Your task to perform on an android device: find which apps use the phone's location Image 0: 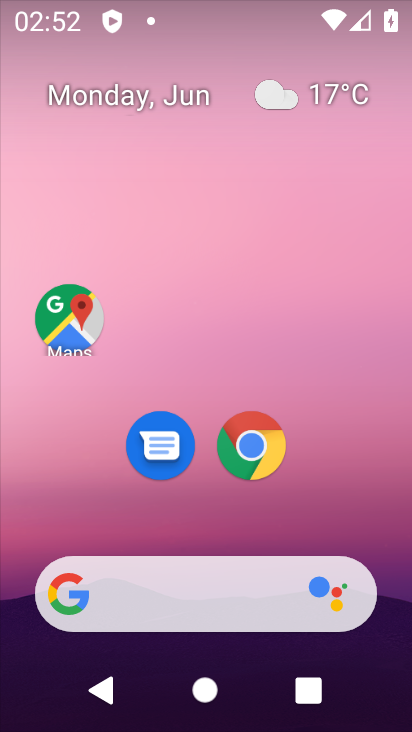
Step 0: drag from (111, 553) to (254, 41)
Your task to perform on an android device: find which apps use the phone's location Image 1: 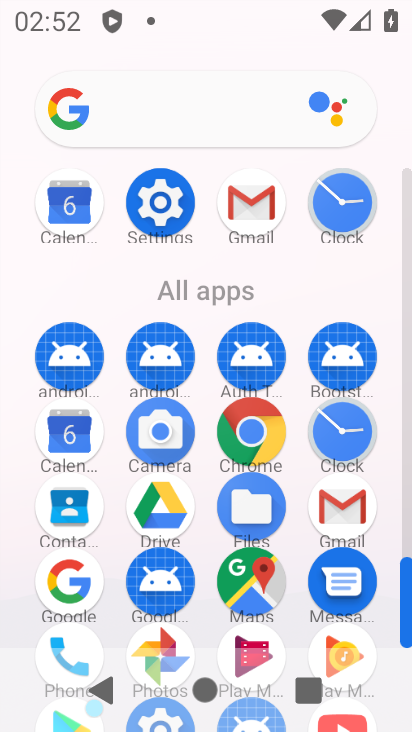
Step 1: drag from (204, 663) to (294, 257)
Your task to perform on an android device: find which apps use the phone's location Image 2: 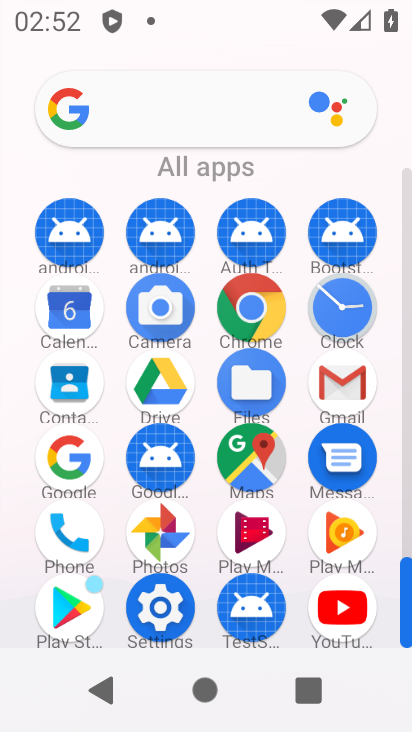
Step 2: click (159, 622)
Your task to perform on an android device: find which apps use the phone's location Image 3: 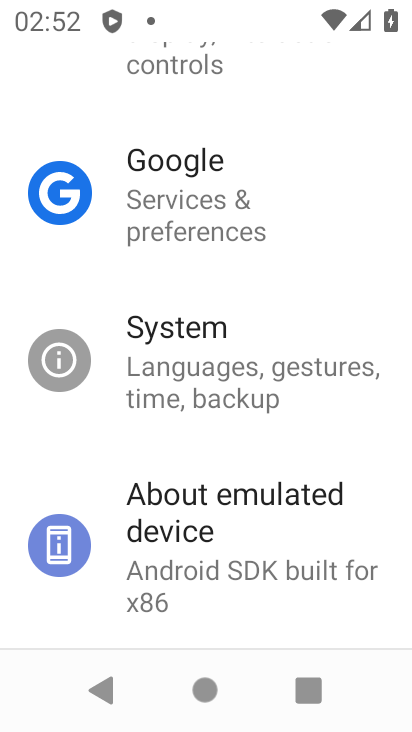
Step 3: drag from (273, 146) to (236, 574)
Your task to perform on an android device: find which apps use the phone's location Image 4: 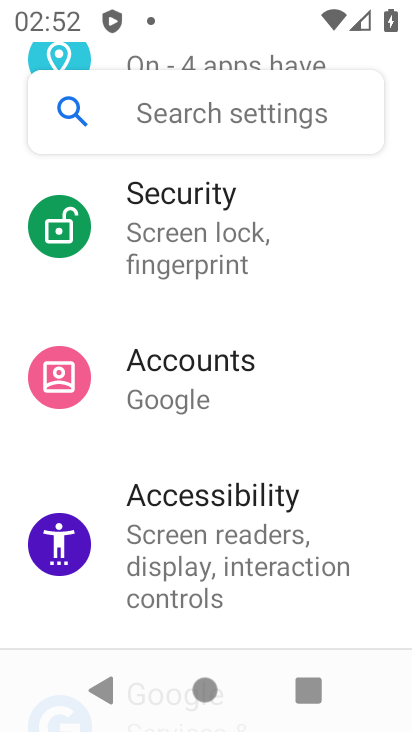
Step 4: drag from (259, 300) to (251, 603)
Your task to perform on an android device: find which apps use the phone's location Image 5: 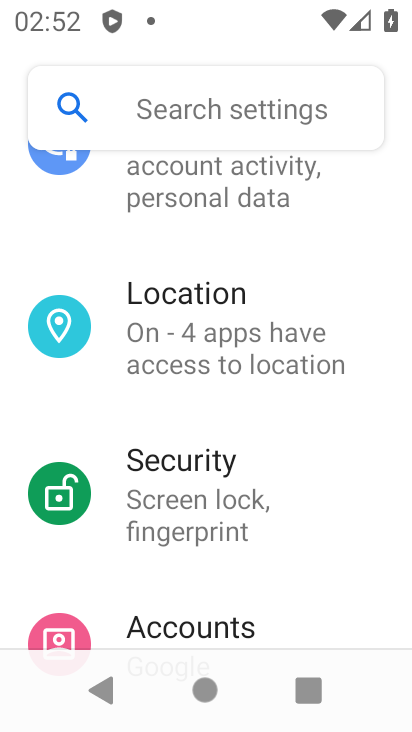
Step 5: click (229, 370)
Your task to perform on an android device: find which apps use the phone's location Image 6: 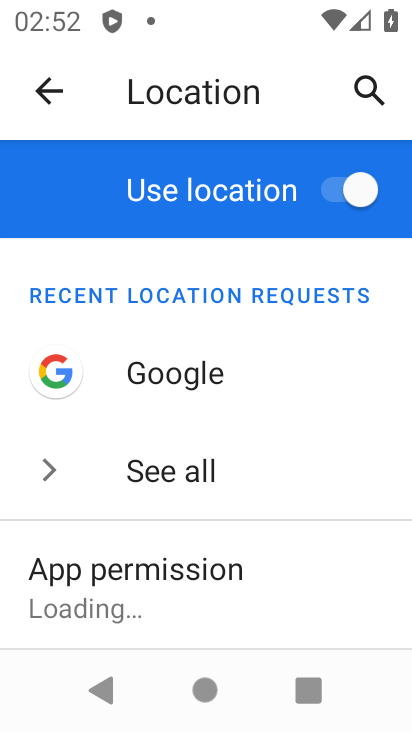
Step 6: click (224, 576)
Your task to perform on an android device: find which apps use the phone's location Image 7: 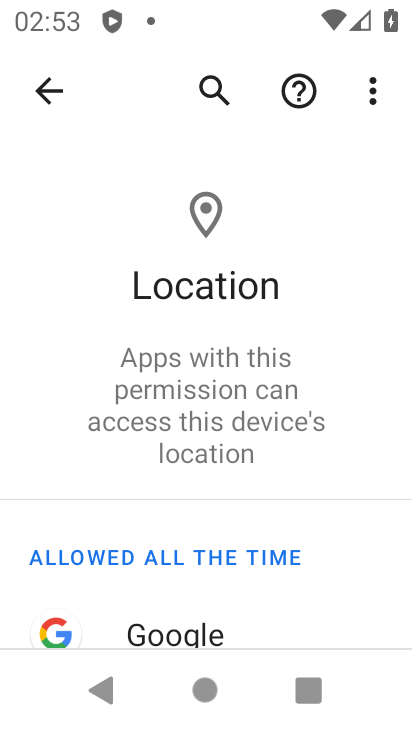
Step 7: task complete